Your task to perform on an android device: When is my next appointment? Image 0: 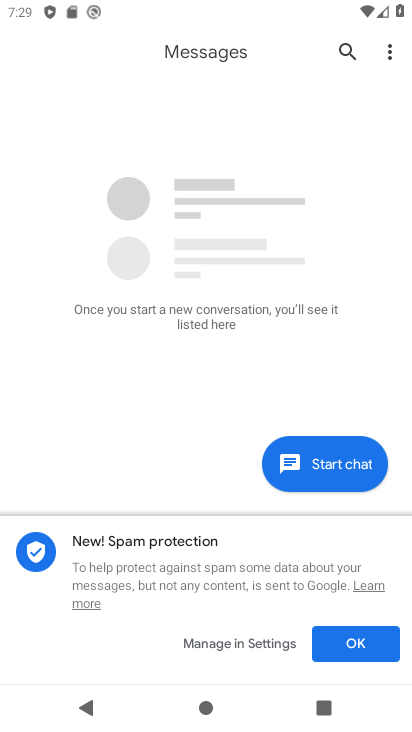
Step 0: press home button
Your task to perform on an android device: When is my next appointment? Image 1: 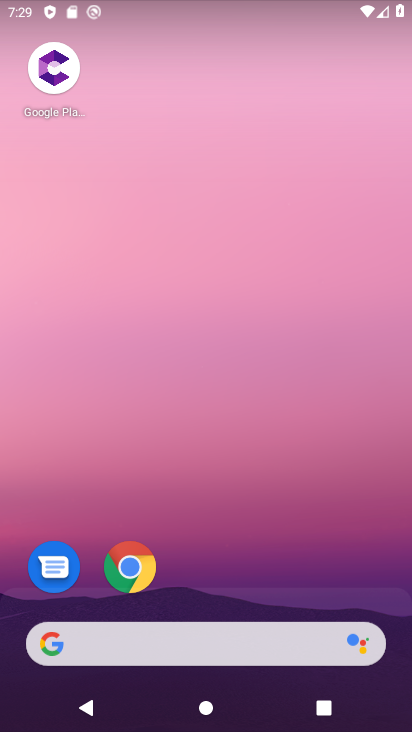
Step 1: drag from (247, 593) to (306, 109)
Your task to perform on an android device: When is my next appointment? Image 2: 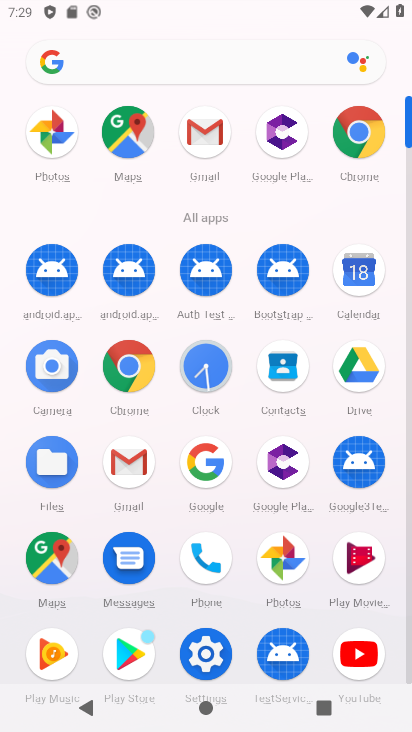
Step 2: click (358, 303)
Your task to perform on an android device: When is my next appointment? Image 3: 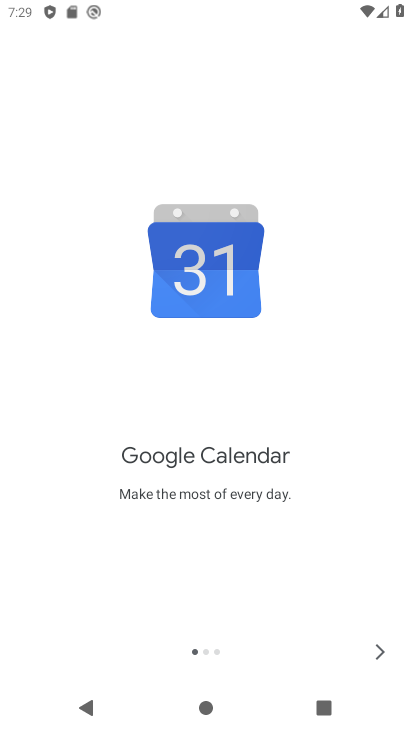
Step 3: click (385, 660)
Your task to perform on an android device: When is my next appointment? Image 4: 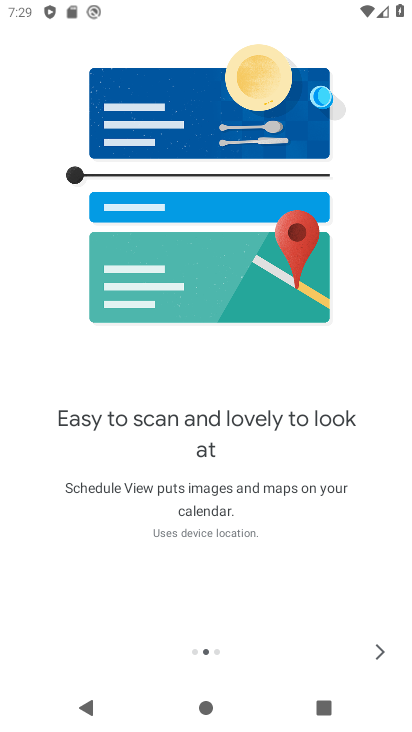
Step 4: click (385, 660)
Your task to perform on an android device: When is my next appointment? Image 5: 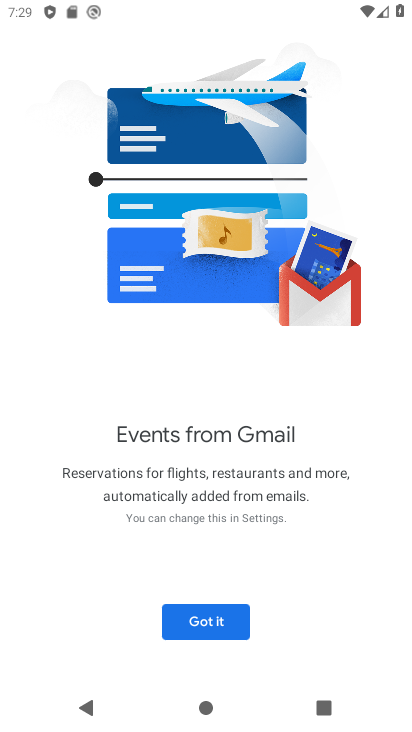
Step 5: click (229, 631)
Your task to perform on an android device: When is my next appointment? Image 6: 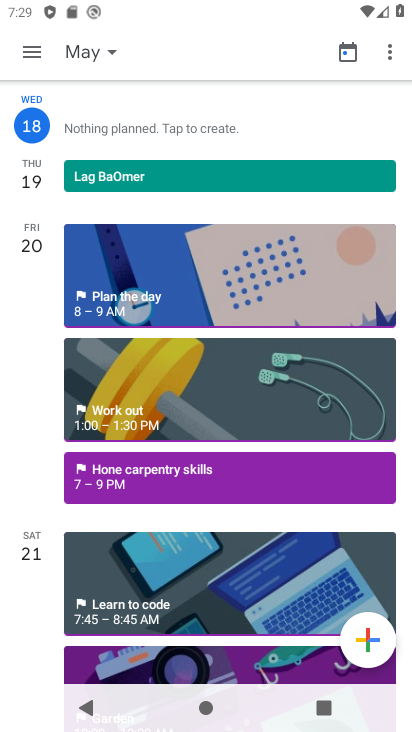
Step 6: click (37, 252)
Your task to perform on an android device: When is my next appointment? Image 7: 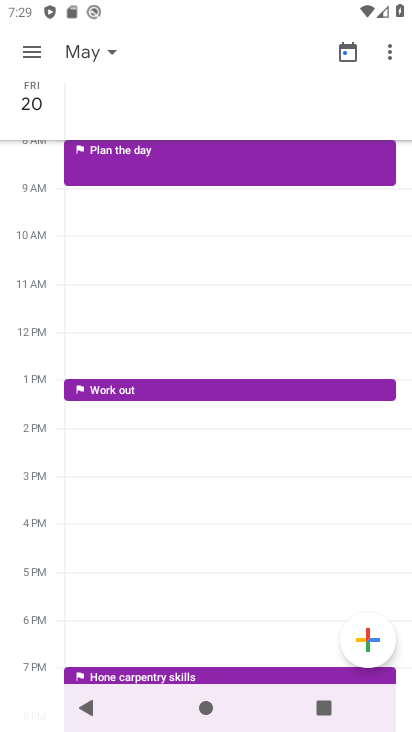
Step 7: task complete